Your task to perform on an android device: Is it going to rain today? Image 0: 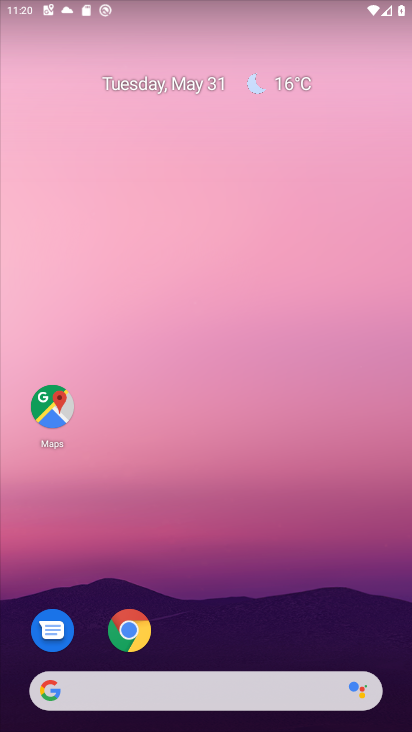
Step 0: click (282, 85)
Your task to perform on an android device: Is it going to rain today? Image 1: 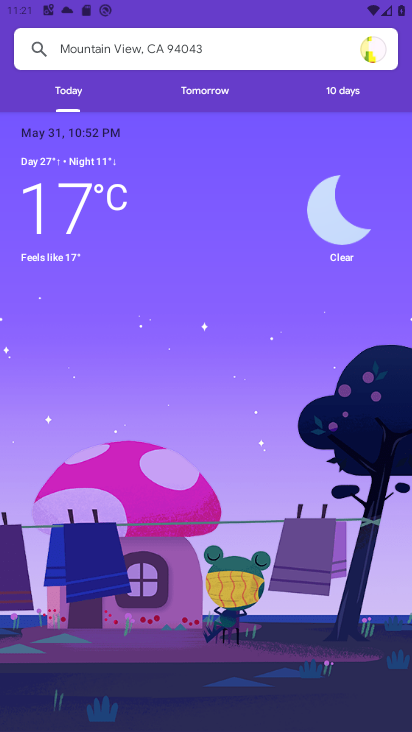
Step 1: click (326, 87)
Your task to perform on an android device: Is it going to rain today? Image 2: 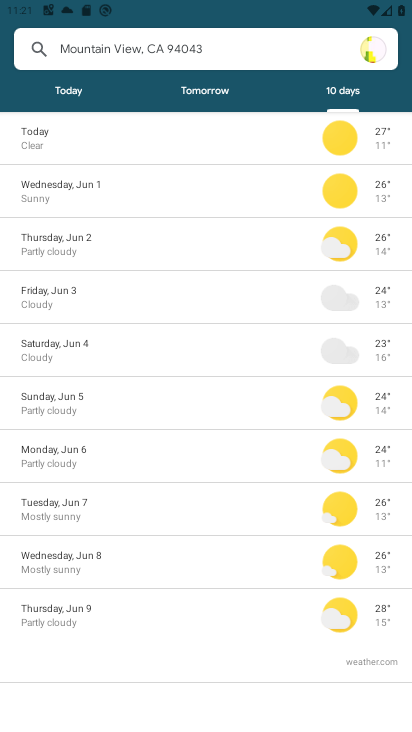
Step 2: click (194, 98)
Your task to perform on an android device: Is it going to rain today? Image 3: 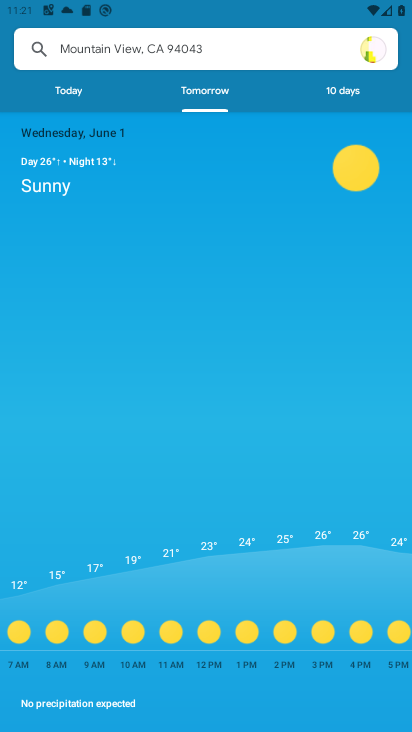
Step 3: click (75, 95)
Your task to perform on an android device: Is it going to rain today? Image 4: 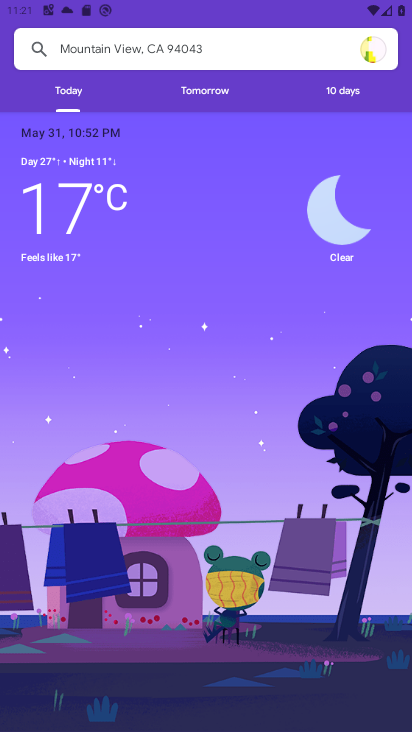
Step 4: task complete